Your task to perform on an android device: Open display settings Image 0: 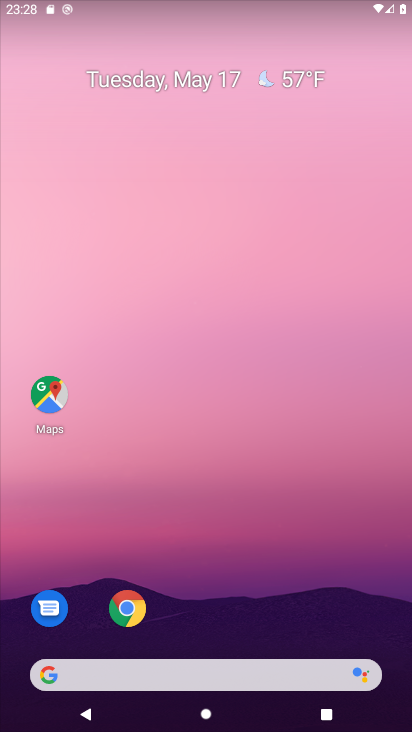
Step 0: drag from (248, 626) to (297, 59)
Your task to perform on an android device: Open display settings Image 1: 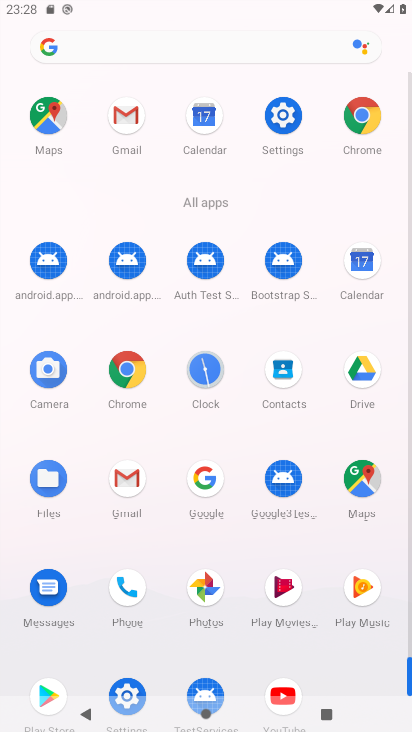
Step 1: click (276, 109)
Your task to perform on an android device: Open display settings Image 2: 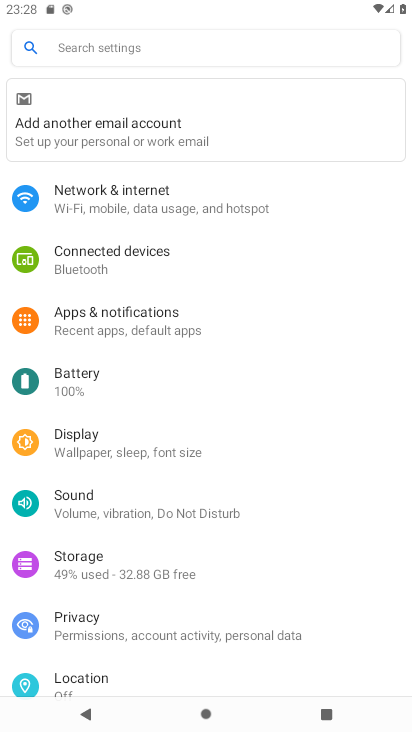
Step 2: click (107, 443)
Your task to perform on an android device: Open display settings Image 3: 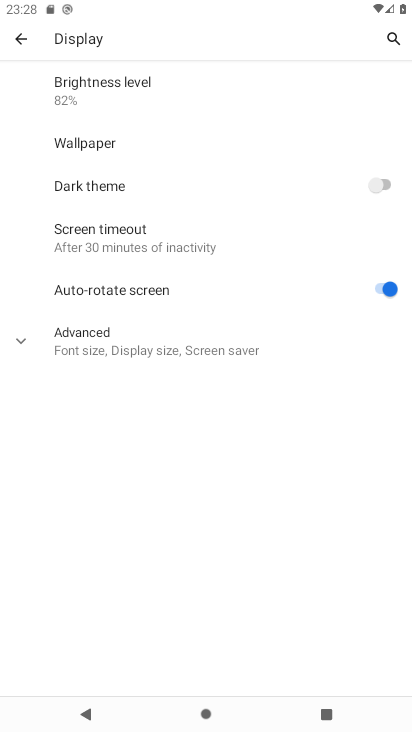
Step 3: task complete